Your task to perform on an android device: set an alarm Image 0: 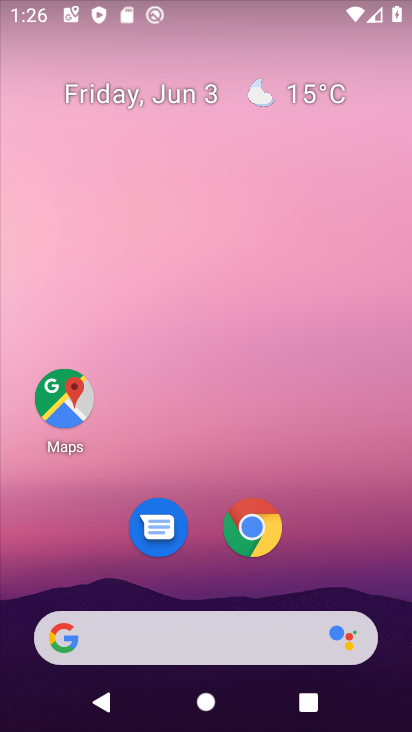
Step 0: drag from (366, 525) to (335, 292)
Your task to perform on an android device: set an alarm Image 1: 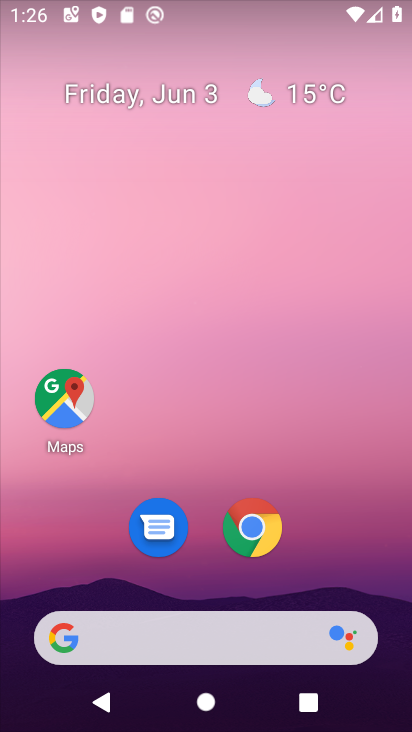
Step 1: drag from (386, 606) to (320, 198)
Your task to perform on an android device: set an alarm Image 2: 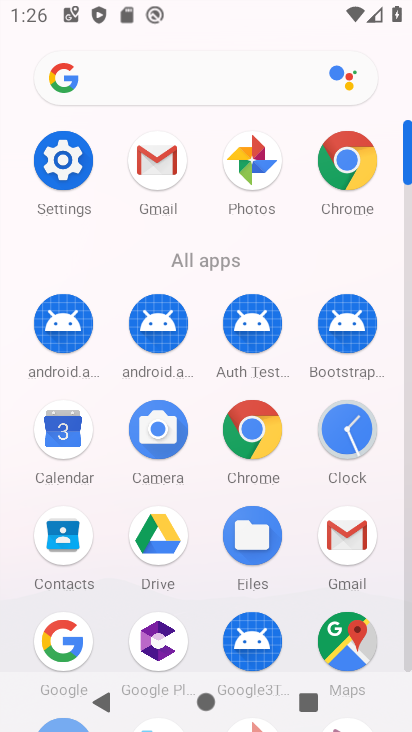
Step 2: click (347, 460)
Your task to perform on an android device: set an alarm Image 3: 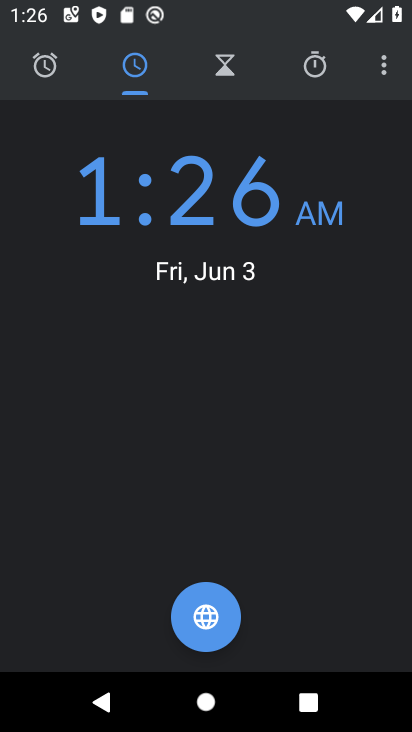
Step 3: click (50, 95)
Your task to perform on an android device: set an alarm Image 4: 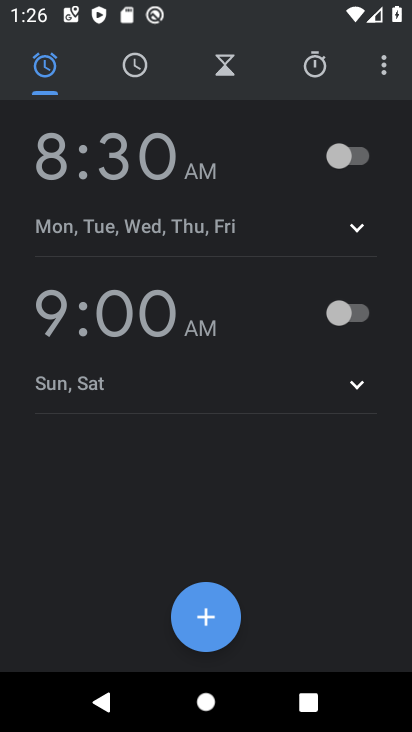
Step 4: click (213, 606)
Your task to perform on an android device: set an alarm Image 5: 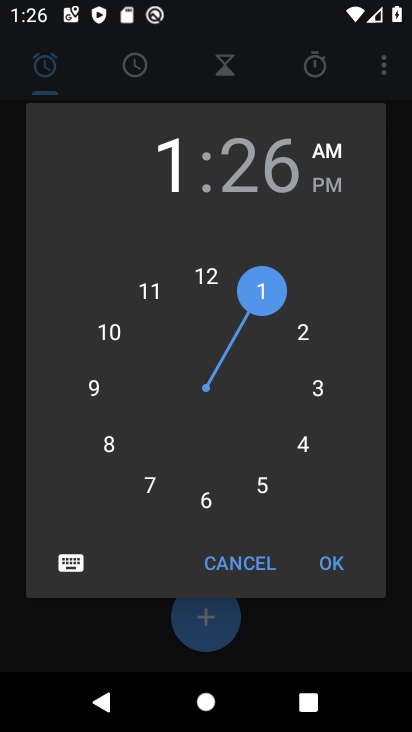
Step 5: click (311, 437)
Your task to perform on an android device: set an alarm Image 6: 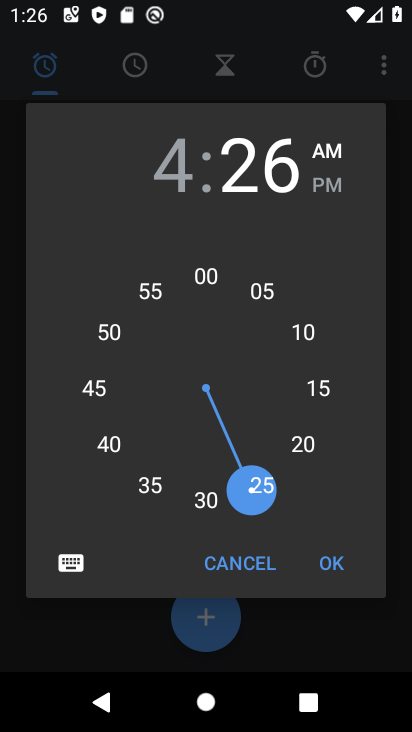
Step 6: click (338, 562)
Your task to perform on an android device: set an alarm Image 7: 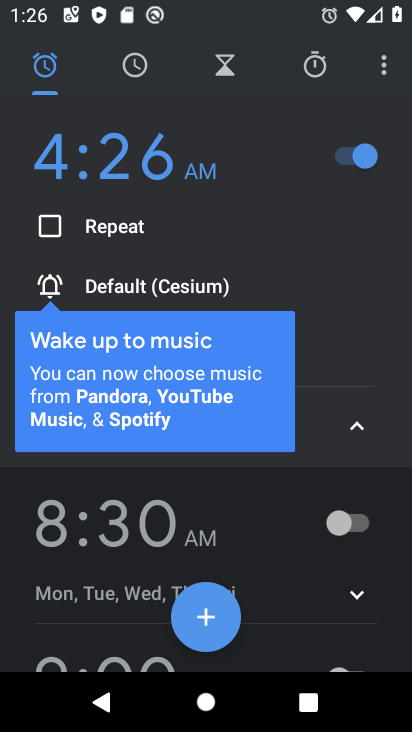
Step 7: task complete